Your task to perform on an android device: open the mobile data screen to see how much data has been used Image 0: 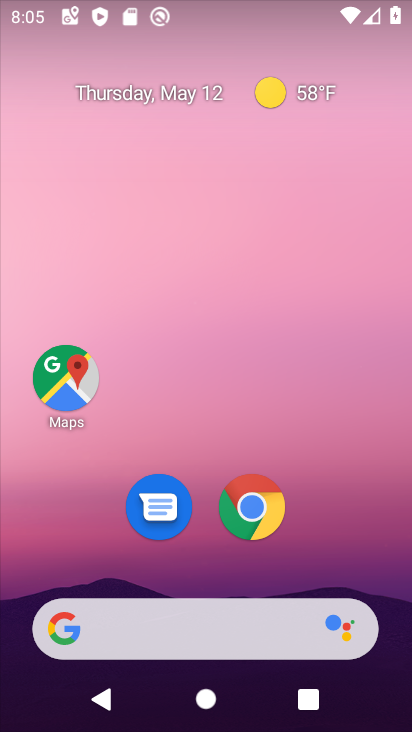
Step 0: drag from (212, 581) to (228, 311)
Your task to perform on an android device: open the mobile data screen to see how much data has been used Image 1: 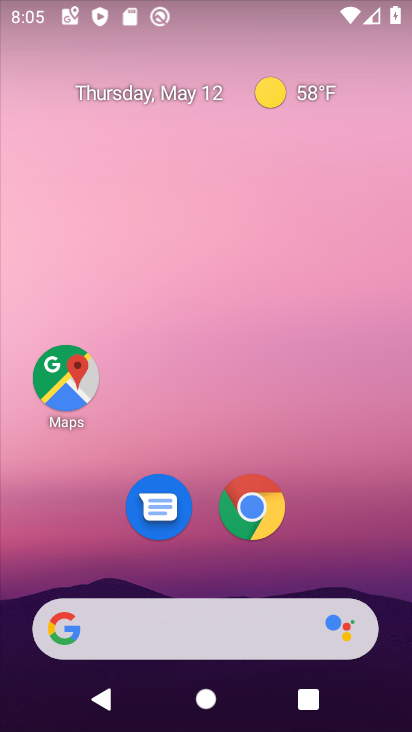
Step 1: drag from (207, 584) to (190, 85)
Your task to perform on an android device: open the mobile data screen to see how much data has been used Image 2: 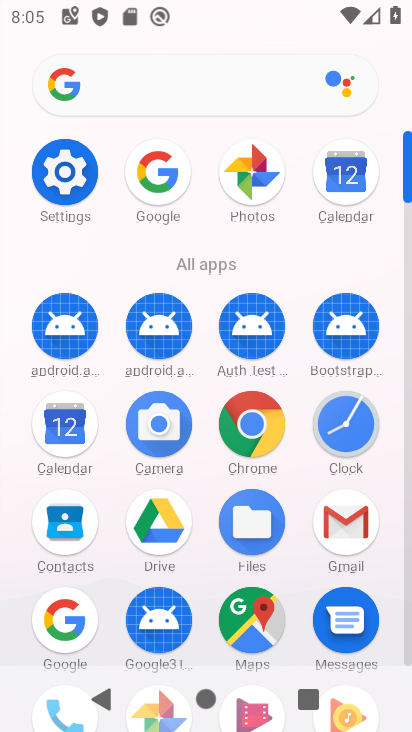
Step 2: click (78, 171)
Your task to perform on an android device: open the mobile data screen to see how much data has been used Image 3: 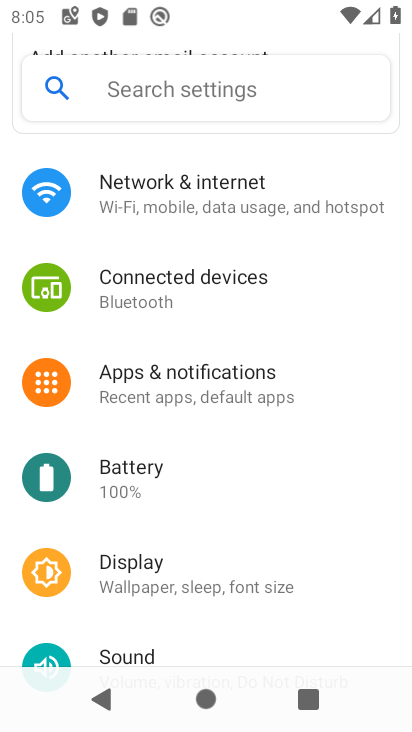
Step 3: click (153, 207)
Your task to perform on an android device: open the mobile data screen to see how much data has been used Image 4: 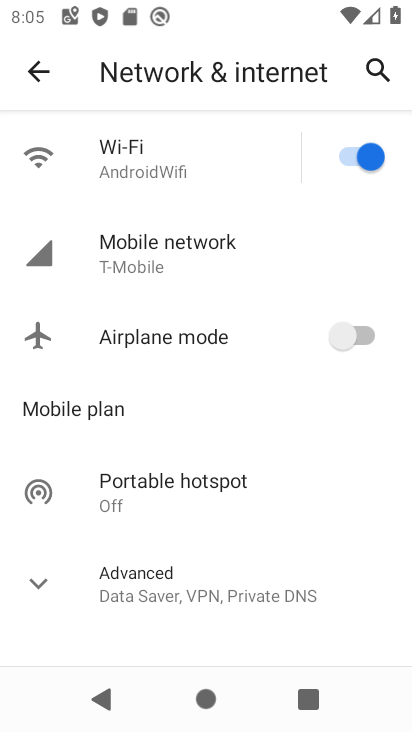
Step 4: click (208, 242)
Your task to perform on an android device: open the mobile data screen to see how much data has been used Image 5: 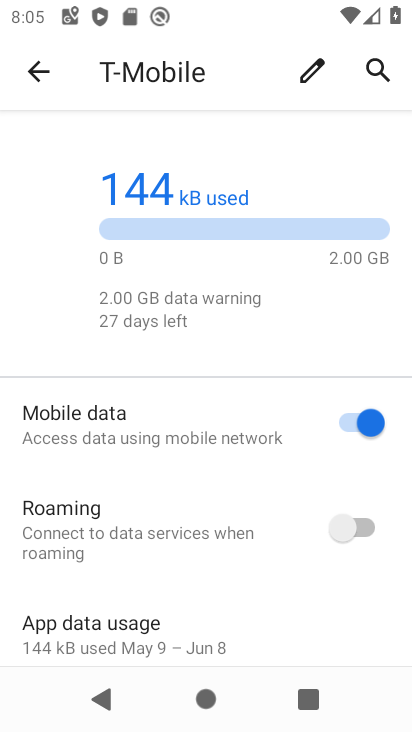
Step 5: click (151, 614)
Your task to perform on an android device: open the mobile data screen to see how much data has been used Image 6: 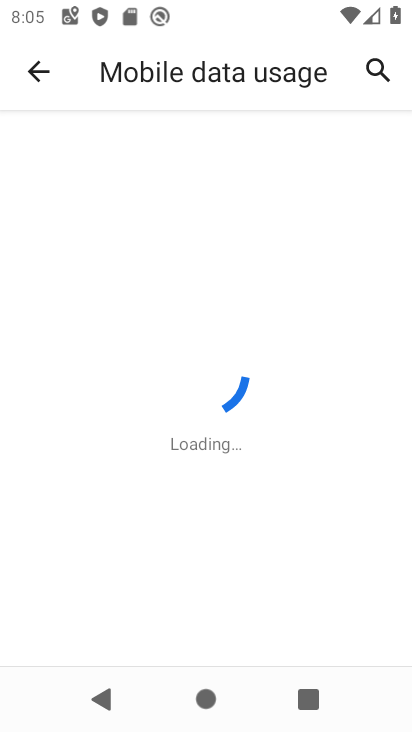
Step 6: task complete